Your task to perform on an android device: Do I have any events today? Image 0: 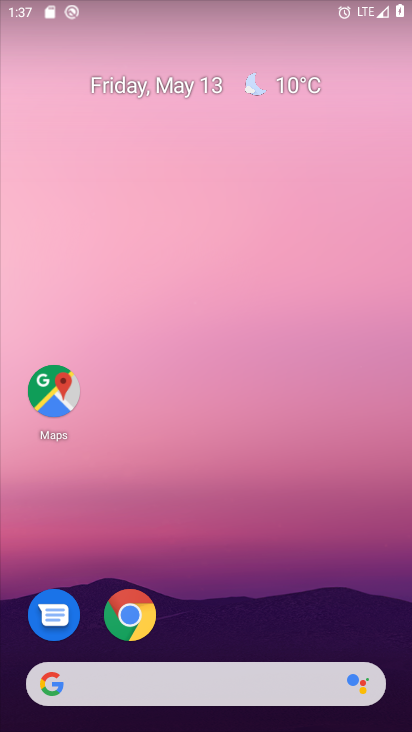
Step 0: drag from (273, 552) to (326, 16)
Your task to perform on an android device: Do I have any events today? Image 1: 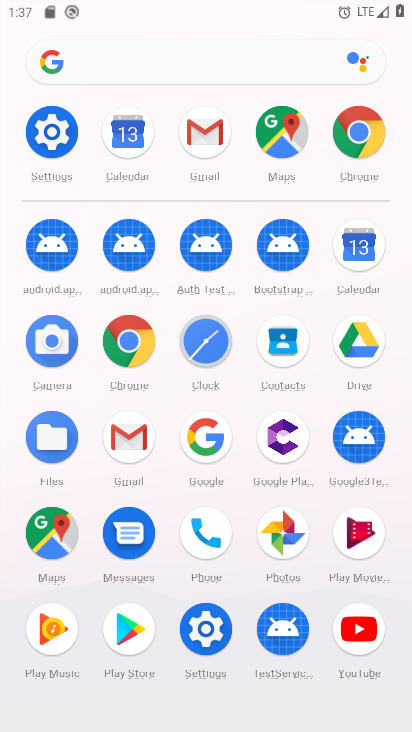
Step 1: click (135, 120)
Your task to perform on an android device: Do I have any events today? Image 2: 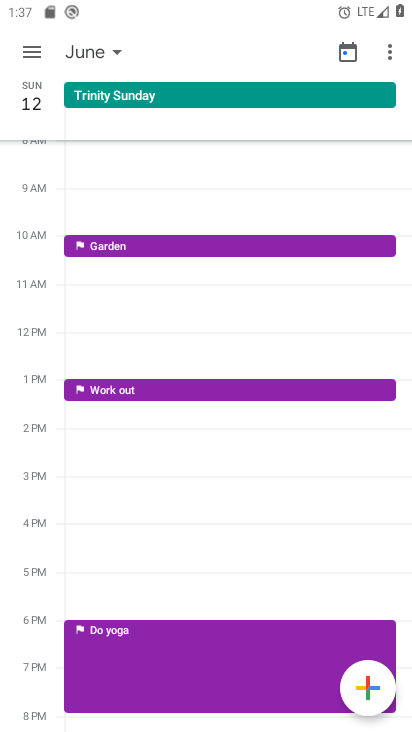
Step 2: click (30, 50)
Your task to perform on an android device: Do I have any events today? Image 3: 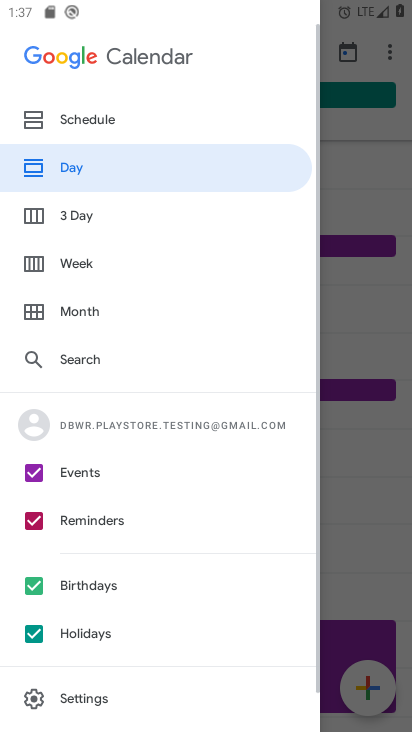
Step 3: click (49, 308)
Your task to perform on an android device: Do I have any events today? Image 4: 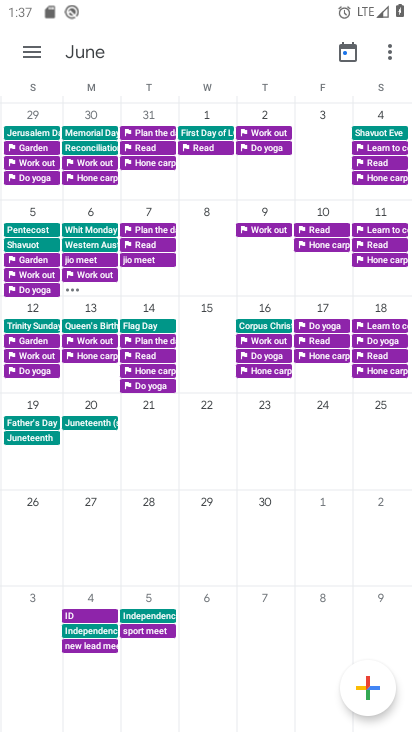
Step 4: drag from (24, 463) to (407, 461)
Your task to perform on an android device: Do I have any events today? Image 5: 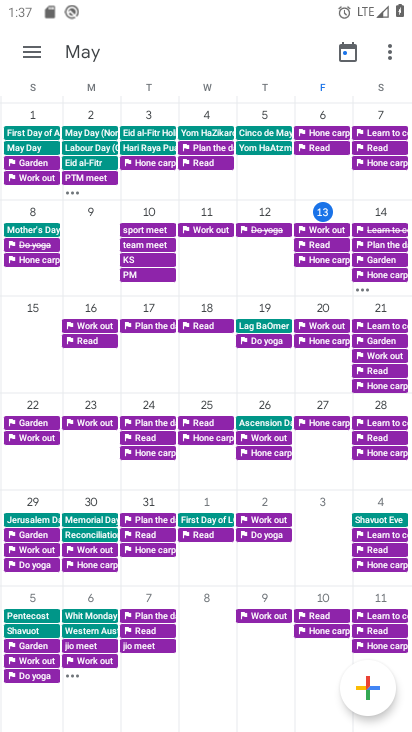
Step 5: click (320, 212)
Your task to perform on an android device: Do I have any events today? Image 6: 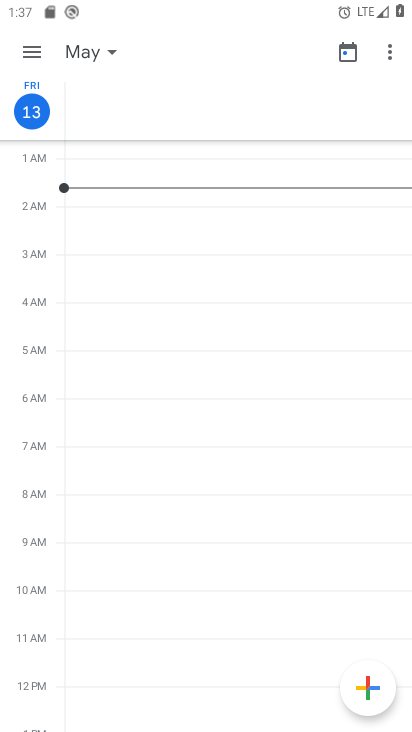
Step 6: click (36, 45)
Your task to perform on an android device: Do I have any events today? Image 7: 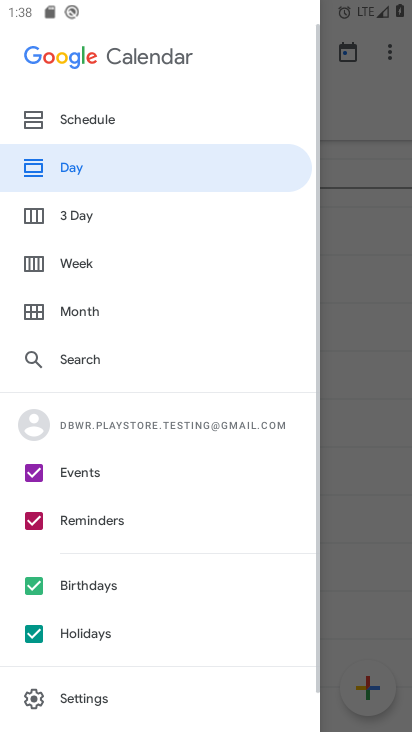
Step 7: click (89, 116)
Your task to perform on an android device: Do I have any events today? Image 8: 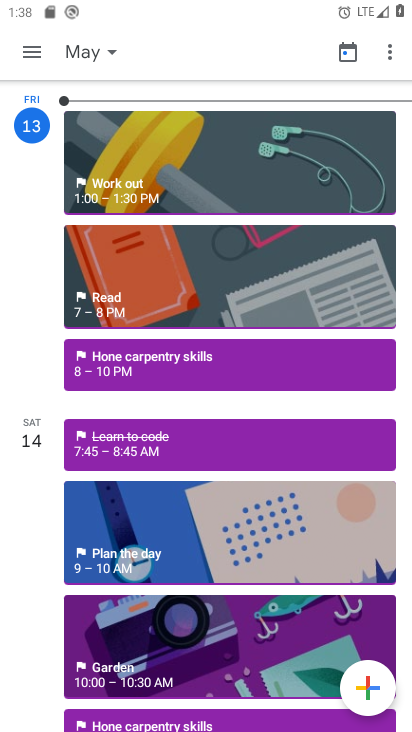
Step 8: task complete